Your task to perform on an android device: toggle javascript in the chrome app Image 0: 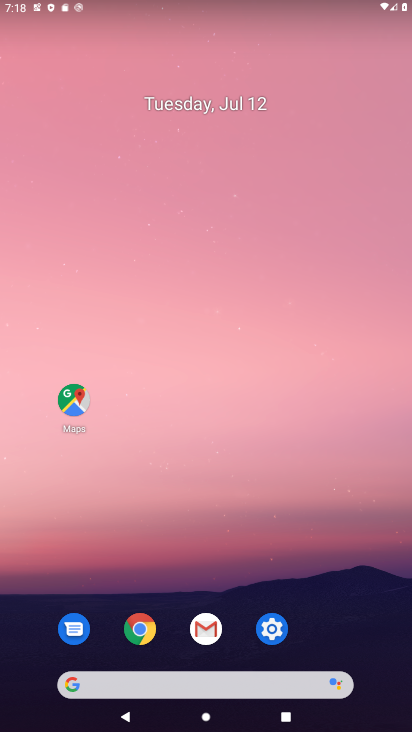
Step 0: click (147, 625)
Your task to perform on an android device: toggle javascript in the chrome app Image 1: 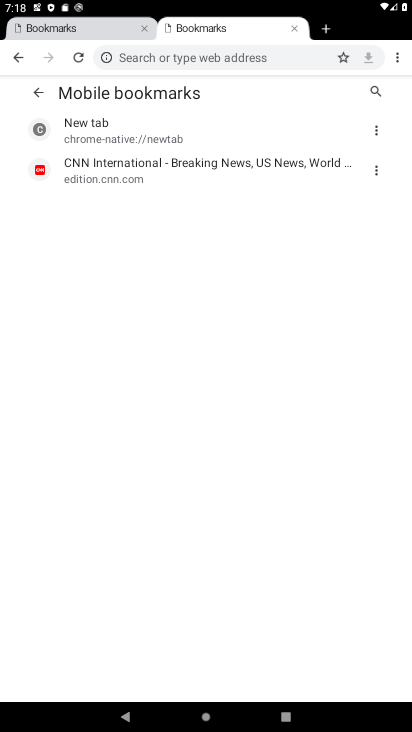
Step 1: click (394, 64)
Your task to perform on an android device: toggle javascript in the chrome app Image 2: 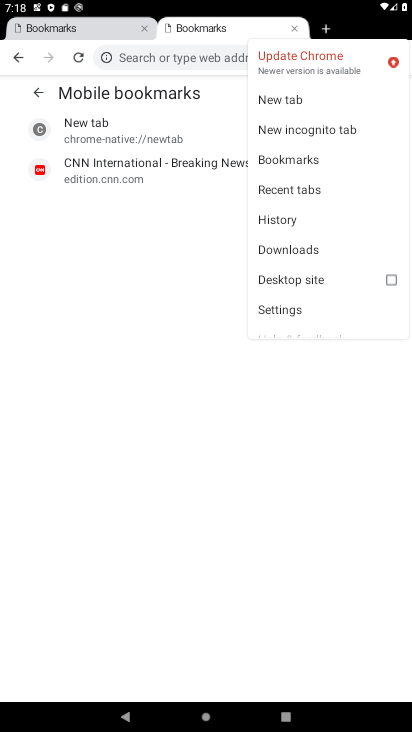
Step 2: click (282, 312)
Your task to perform on an android device: toggle javascript in the chrome app Image 3: 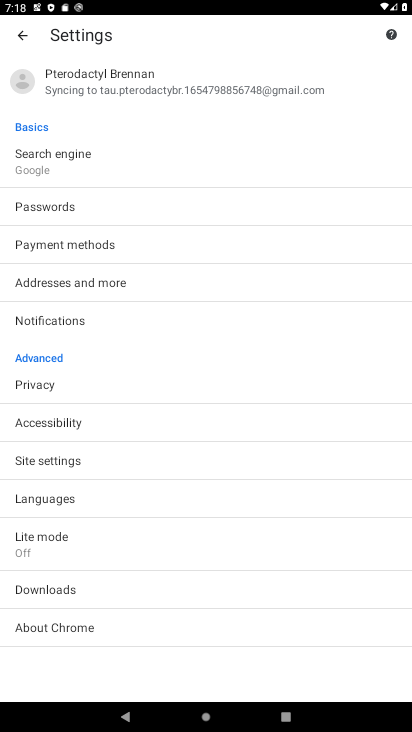
Step 3: click (28, 462)
Your task to perform on an android device: toggle javascript in the chrome app Image 4: 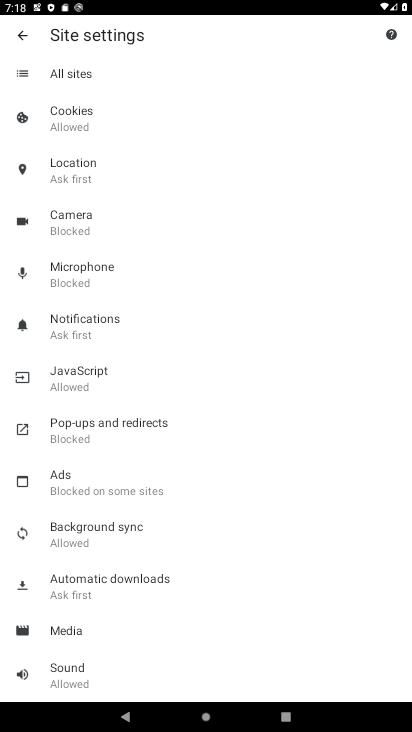
Step 4: click (80, 384)
Your task to perform on an android device: toggle javascript in the chrome app Image 5: 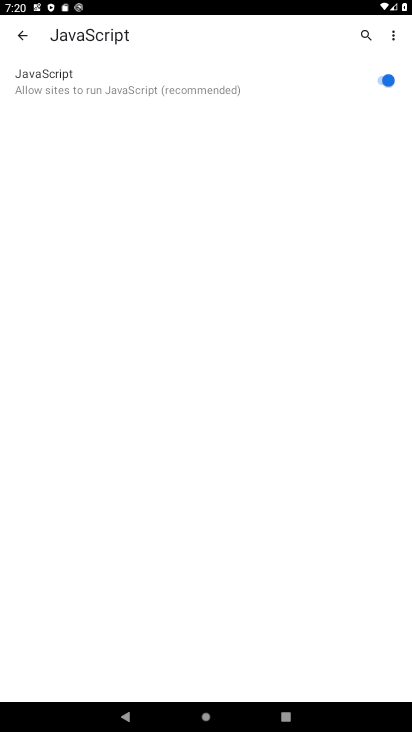
Step 5: task complete